Your task to perform on an android device: see tabs open on other devices in the chrome app Image 0: 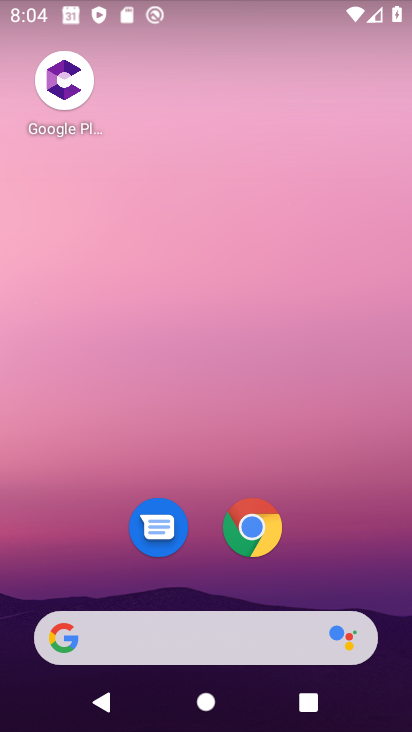
Step 0: press home button
Your task to perform on an android device: see tabs open on other devices in the chrome app Image 1: 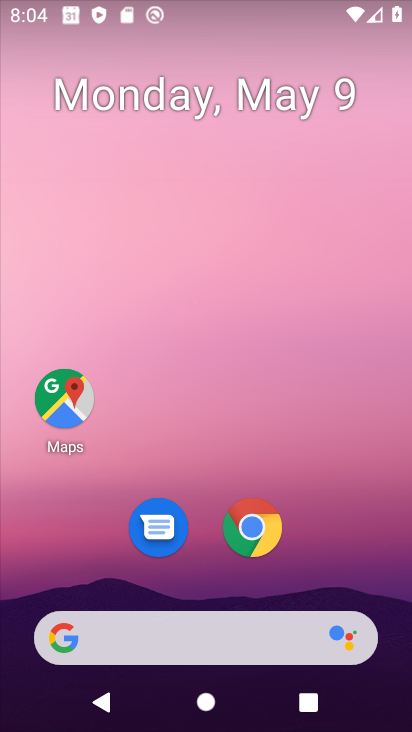
Step 1: click (225, 571)
Your task to perform on an android device: see tabs open on other devices in the chrome app Image 2: 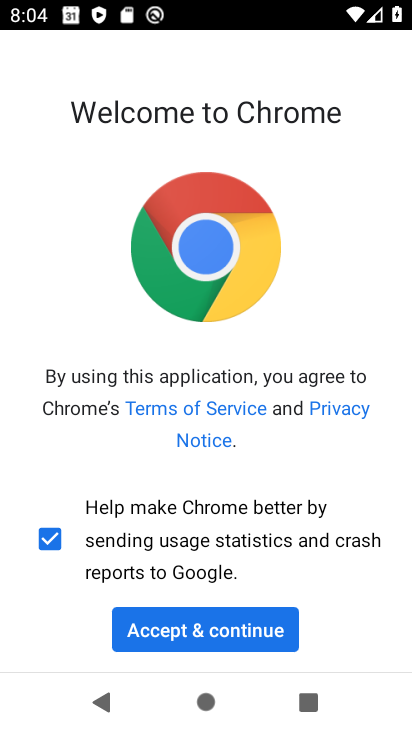
Step 2: click (161, 628)
Your task to perform on an android device: see tabs open on other devices in the chrome app Image 3: 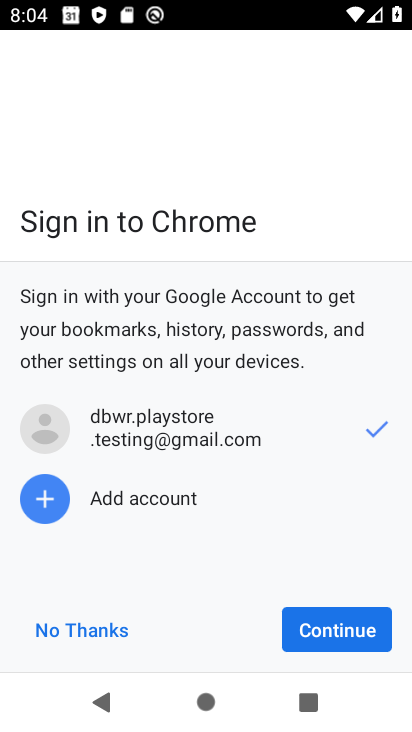
Step 3: click (326, 631)
Your task to perform on an android device: see tabs open on other devices in the chrome app Image 4: 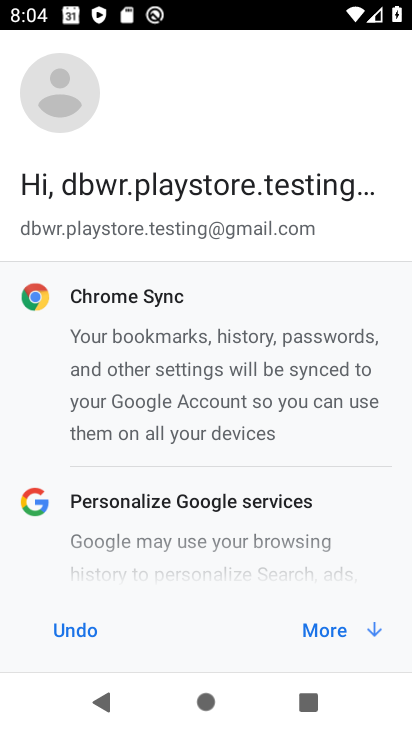
Step 4: click (324, 630)
Your task to perform on an android device: see tabs open on other devices in the chrome app Image 5: 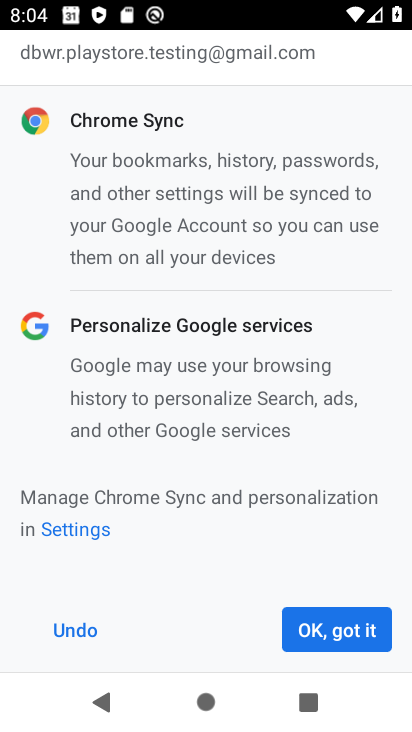
Step 5: click (316, 626)
Your task to perform on an android device: see tabs open on other devices in the chrome app Image 6: 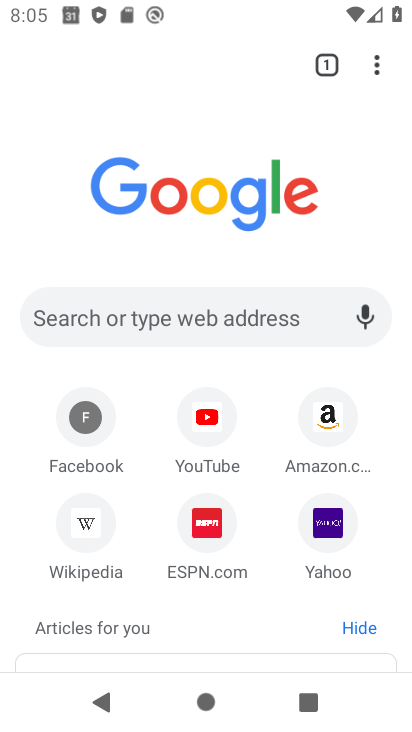
Step 6: click (364, 76)
Your task to perform on an android device: see tabs open on other devices in the chrome app Image 7: 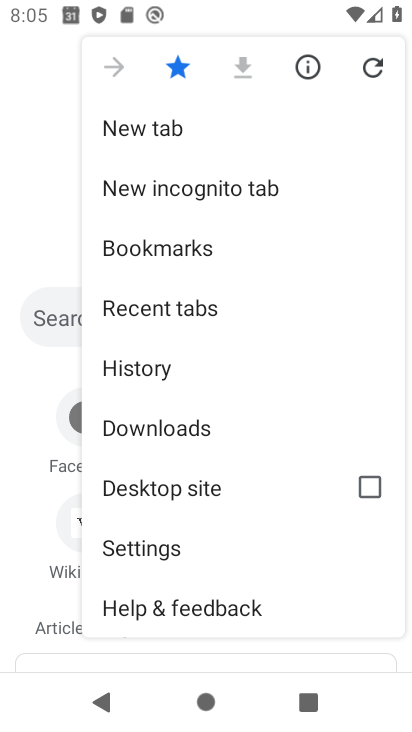
Step 7: click (199, 311)
Your task to perform on an android device: see tabs open on other devices in the chrome app Image 8: 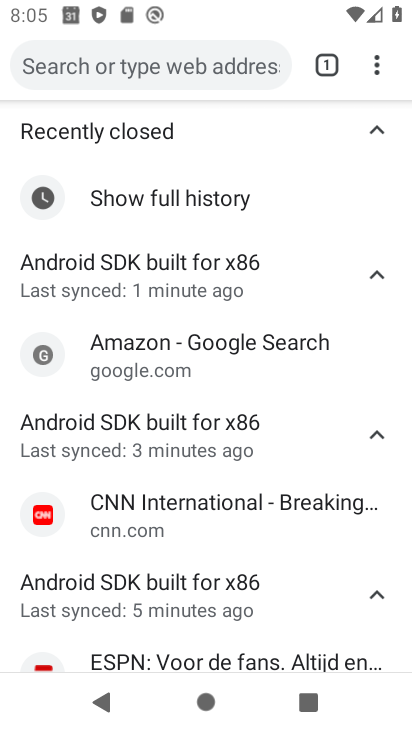
Step 8: task complete